Your task to perform on an android device: Open sound settings Image 0: 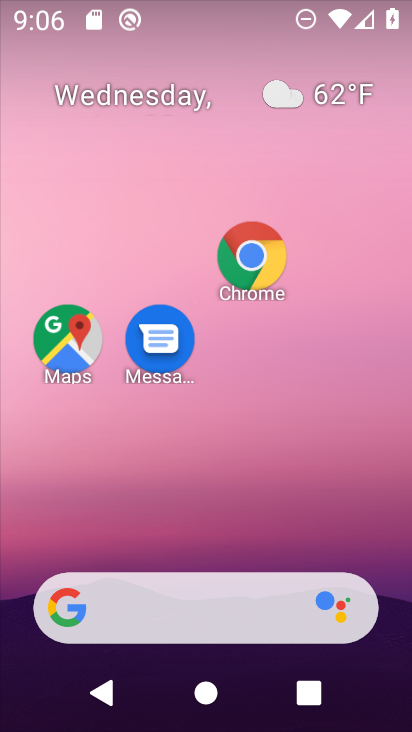
Step 0: drag from (248, 466) to (253, 105)
Your task to perform on an android device: Open sound settings Image 1: 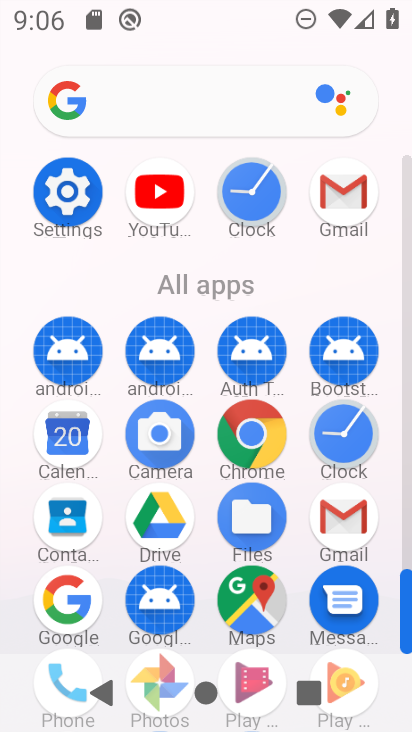
Step 1: click (69, 195)
Your task to perform on an android device: Open sound settings Image 2: 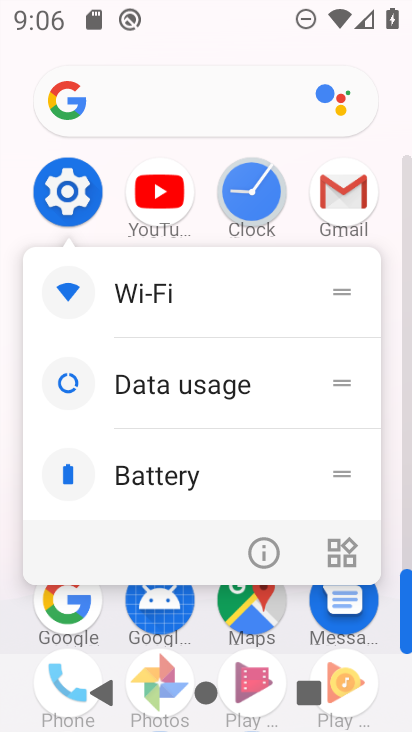
Step 2: click (69, 195)
Your task to perform on an android device: Open sound settings Image 3: 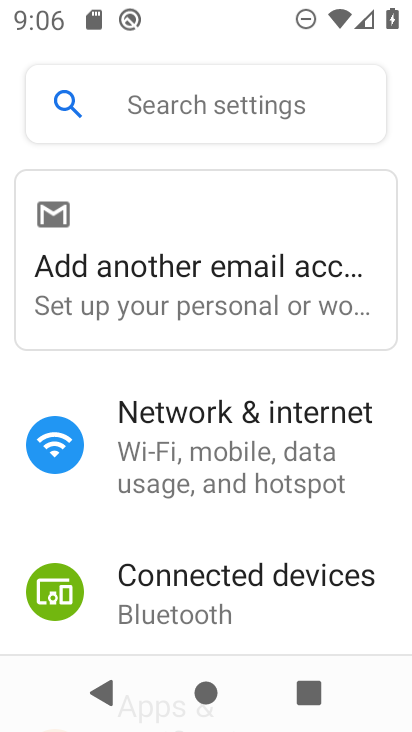
Step 3: drag from (301, 629) to (308, 36)
Your task to perform on an android device: Open sound settings Image 4: 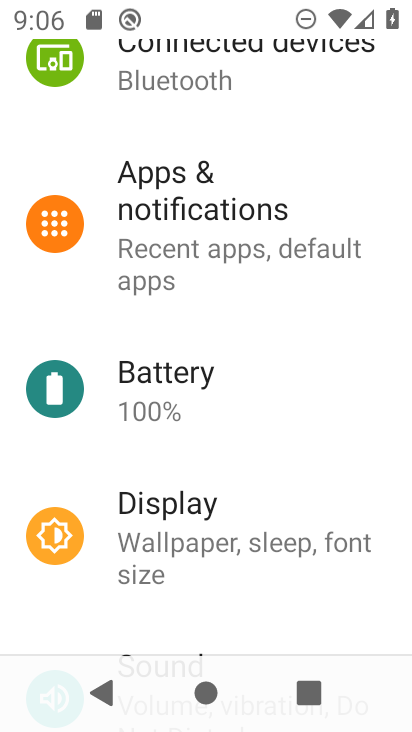
Step 4: drag from (234, 590) to (321, 198)
Your task to perform on an android device: Open sound settings Image 5: 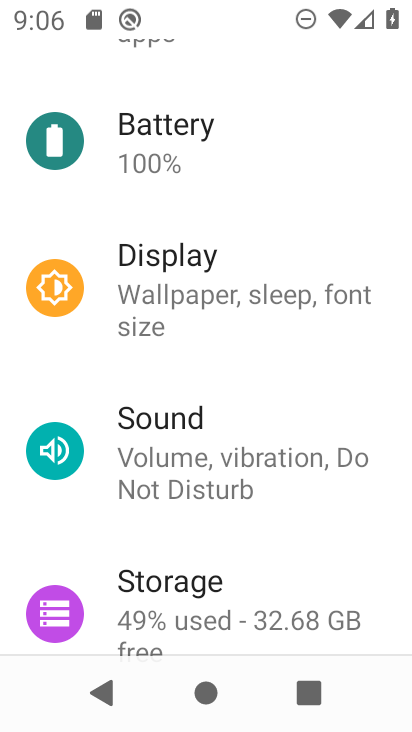
Step 5: click (171, 455)
Your task to perform on an android device: Open sound settings Image 6: 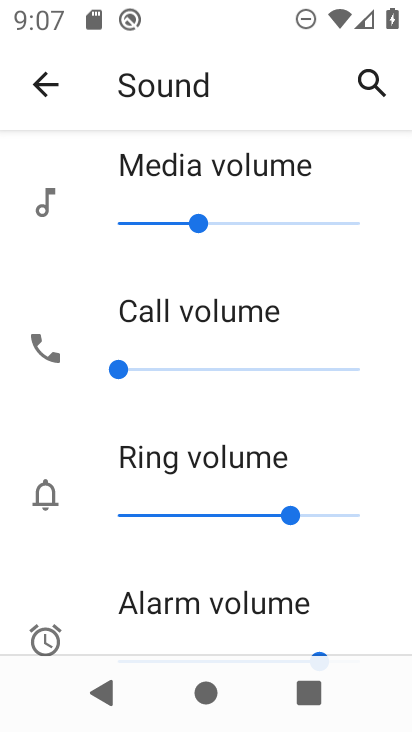
Step 6: task complete